Your task to perform on an android device: delete location history Image 0: 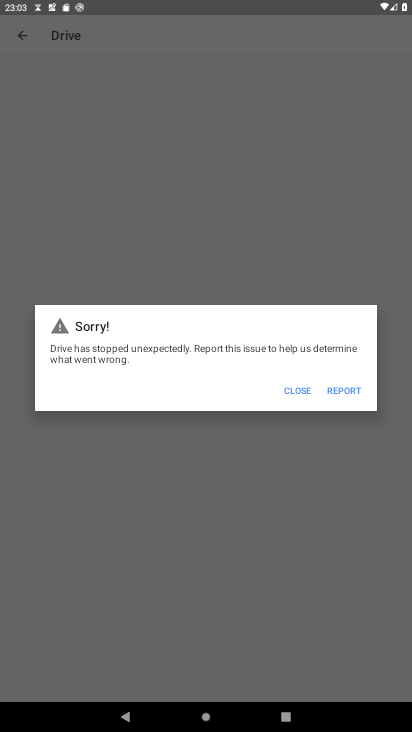
Step 0: press home button
Your task to perform on an android device: delete location history Image 1: 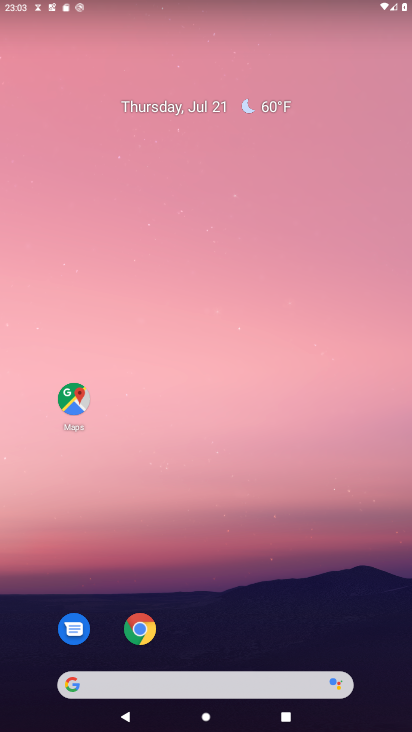
Step 1: click (78, 405)
Your task to perform on an android device: delete location history Image 2: 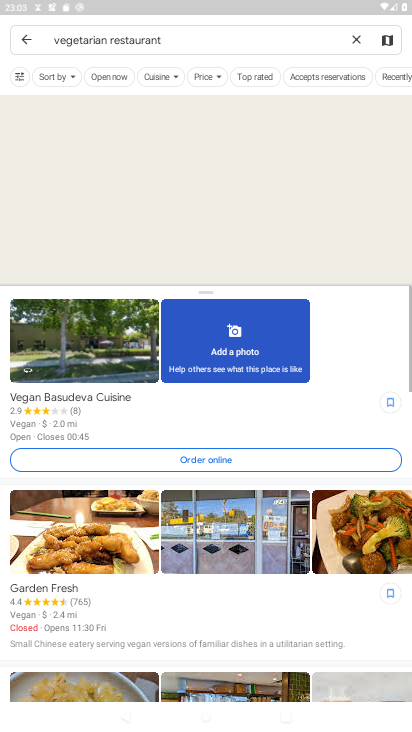
Step 2: click (26, 33)
Your task to perform on an android device: delete location history Image 3: 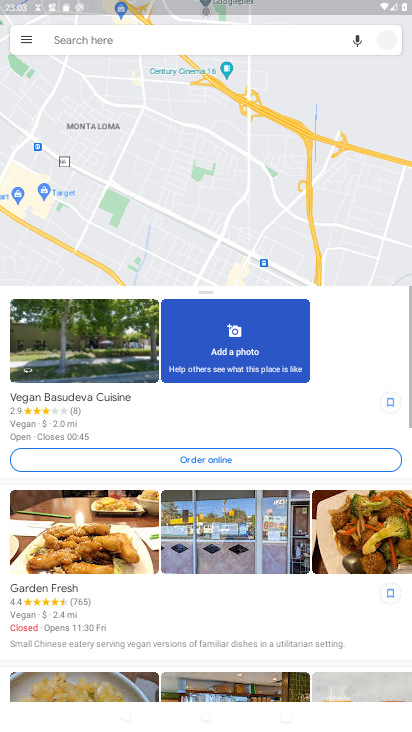
Step 3: click (28, 45)
Your task to perform on an android device: delete location history Image 4: 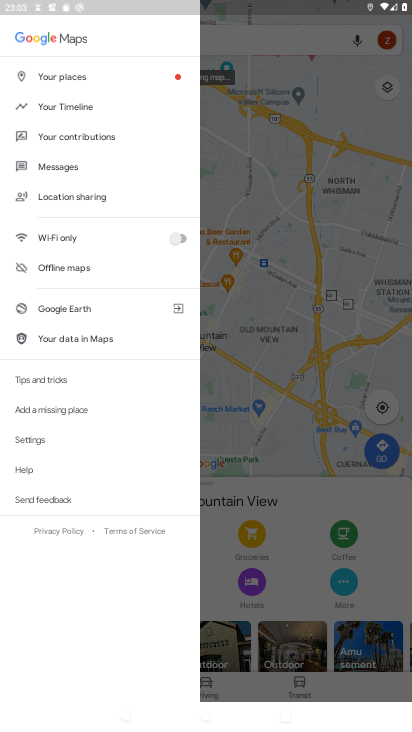
Step 4: click (81, 103)
Your task to perform on an android device: delete location history Image 5: 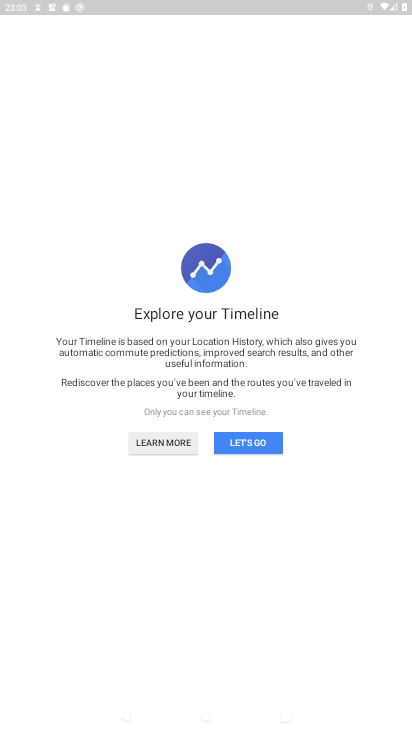
Step 5: click (247, 443)
Your task to perform on an android device: delete location history Image 6: 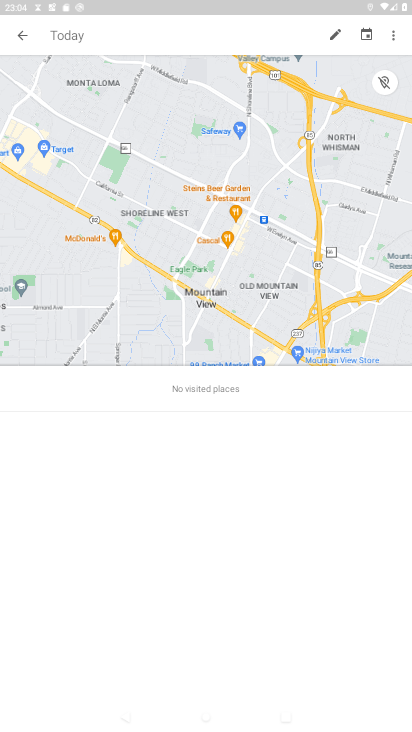
Step 6: click (397, 39)
Your task to perform on an android device: delete location history Image 7: 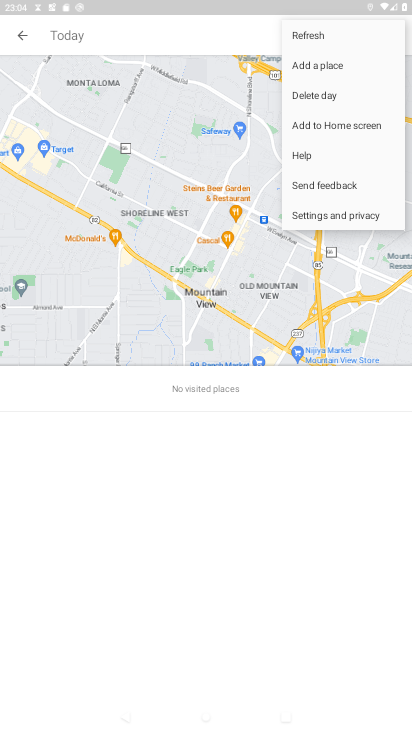
Step 7: click (327, 208)
Your task to perform on an android device: delete location history Image 8: 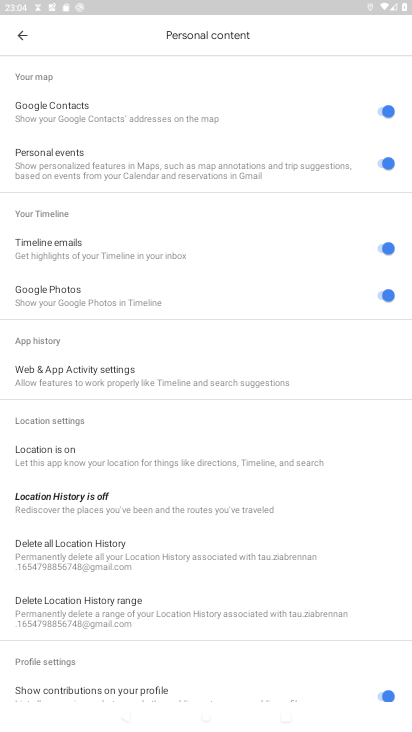
Step 8: click (100, 490)
Your task to perform on an android device: delete location history Image 9: 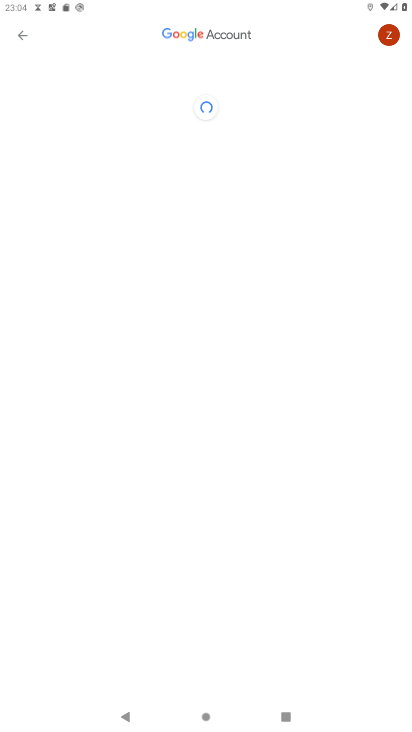
Step 9: click (25, 34)
Your task to perform on an android device: delete location history Image 10: 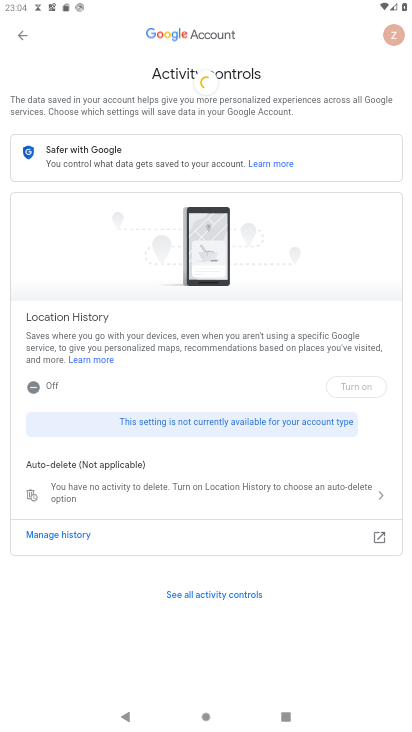
Step 10: click (19, 34)
Your task to perform on an android device: delete location history Image 11: 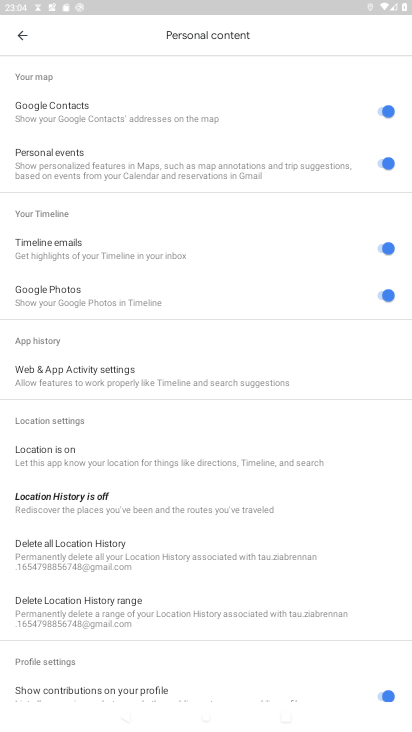
Step 11: click (95, 543)
Your task to perform on an android device: delete location history Image 12: 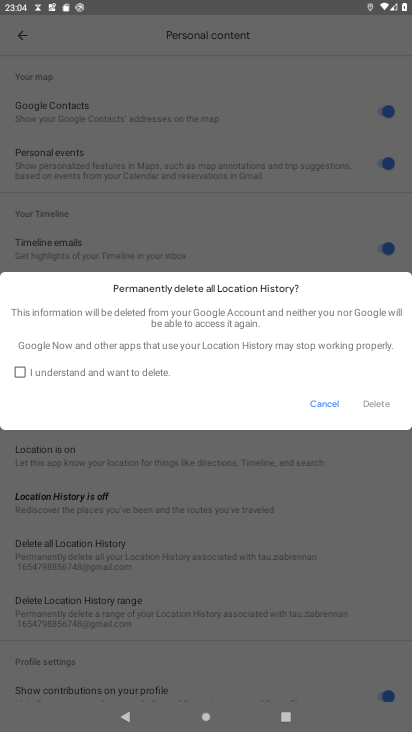
Step 12: click (75, 373)
Your task to perform on an android device: delete location history Image 13: 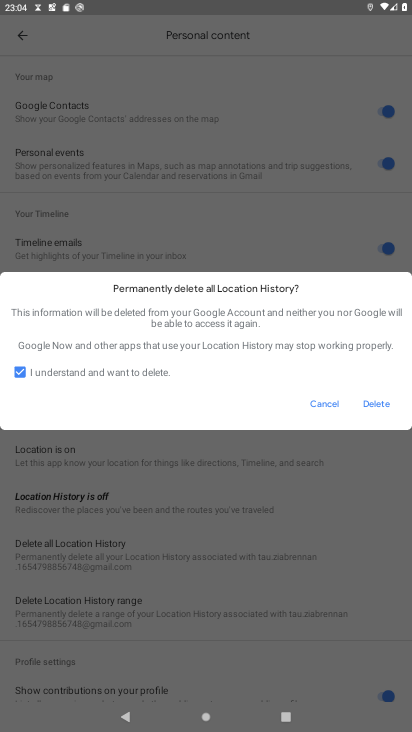
Step 13: click (388, 407)
Your task to perform on an android device: delete location history Image 14: 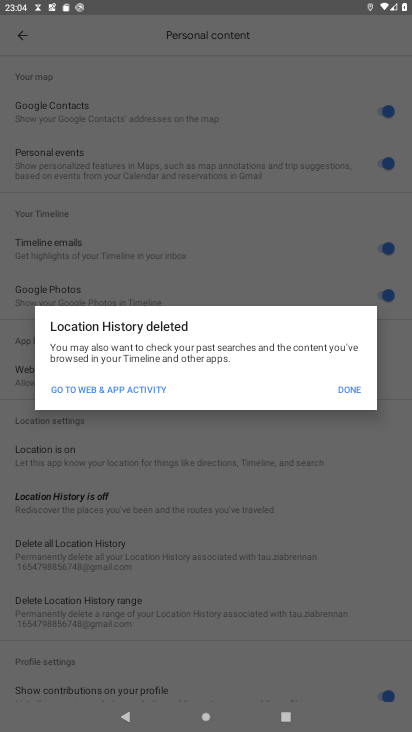
Step 14: click (344, 389)
Your task to perform on an android device: delete location history Image 15: 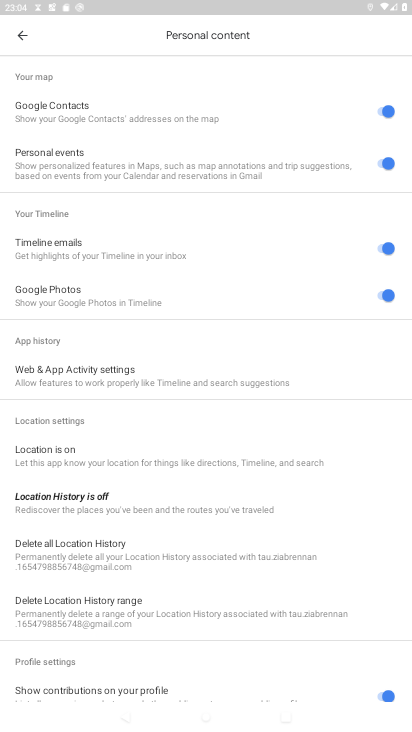
Step 15: task complete